Your task to perform on an android device: Search for Mexican restaurants on Maps Image 0: 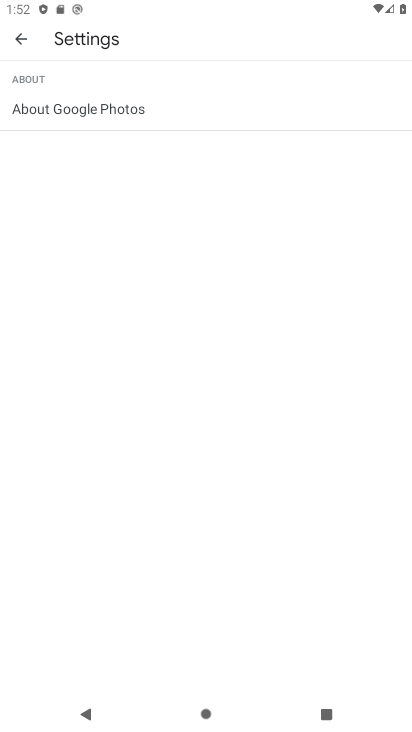
Step 0: press home button
Your task to perform on an android device: Search for Mexican restaurants on Maps Image 1: 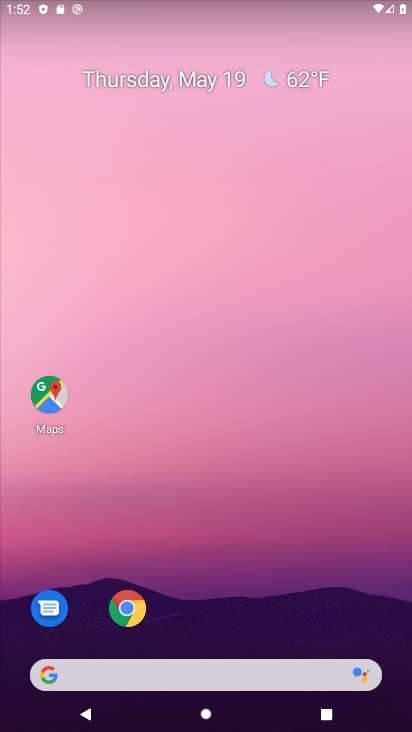
Step 1: click (51, 383)
Your task to perform on an android device: Search for Mexican restaurants on Maps Image 2: 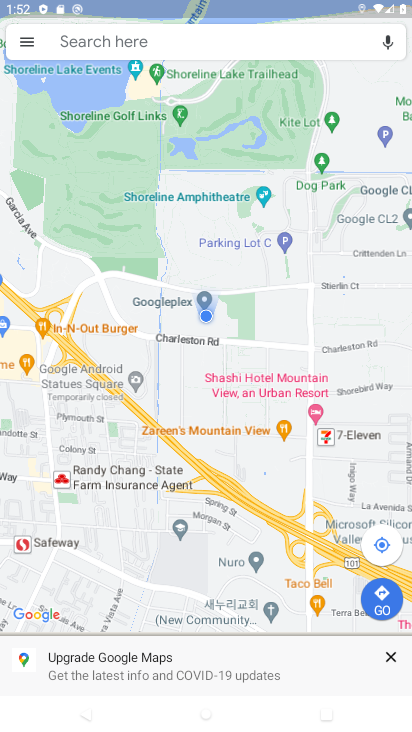
Step 2: click (156, 47)
Your task to perform on an android device: Search for Mexican restaurants on Maps Image 3: 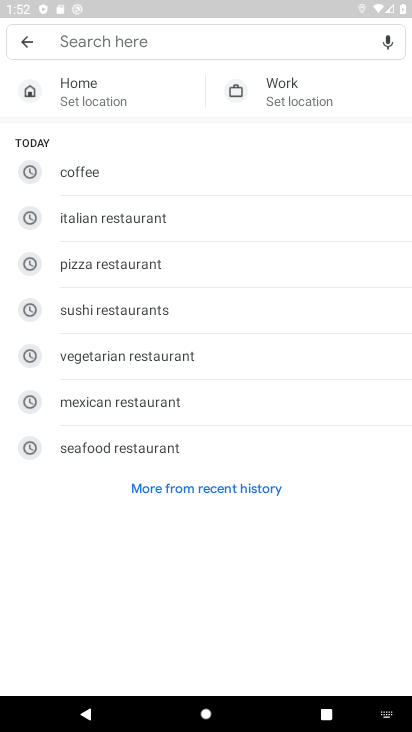
Step 3: click (258, 399)
Your task to perform on an android device: Search for Mexican restaurants on Maps Image 4: 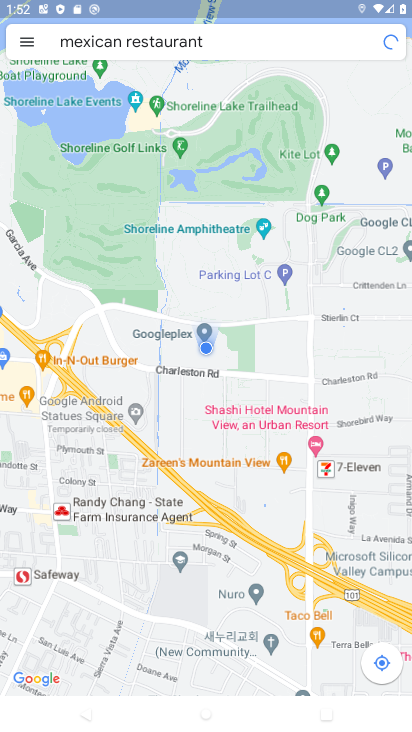
Step 4: task complete